Your task to perform on an android device: turn off smart reply in the gmail app Image 0: 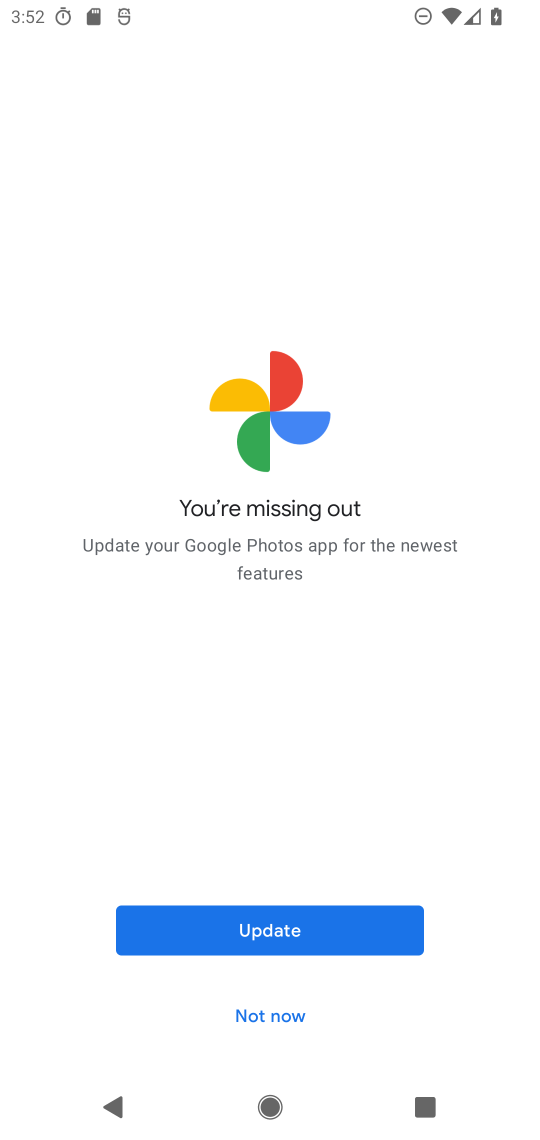
Step 0: press home button
Your task to perform on an android device: turn off smart reply in the gmail app Image 1: 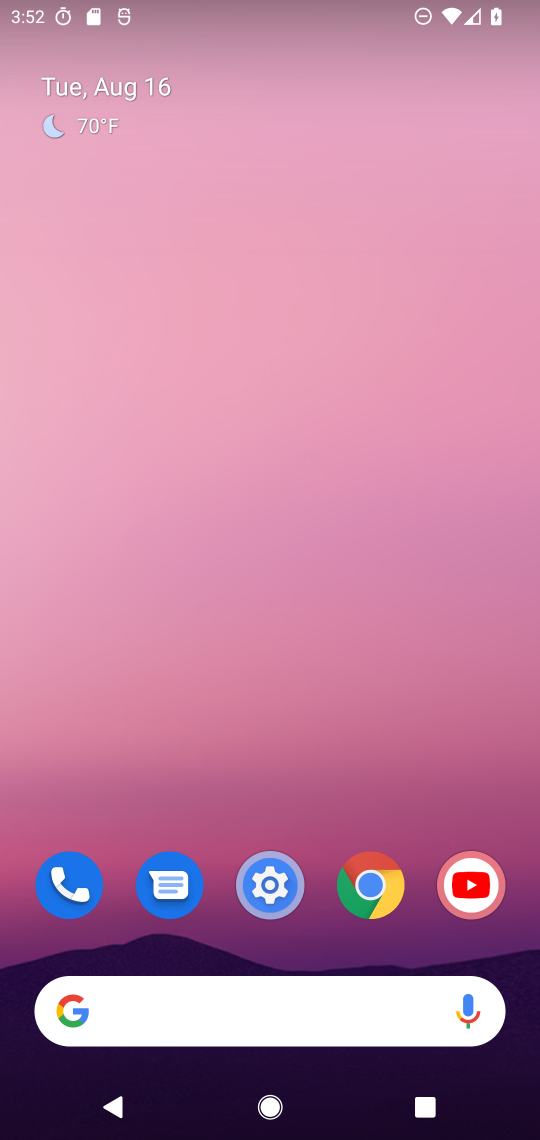
Step 1: drag from (274, 936) to (246, 299)
Your task to perform on an android device: turn off smart reply in the gmail app Image 2: 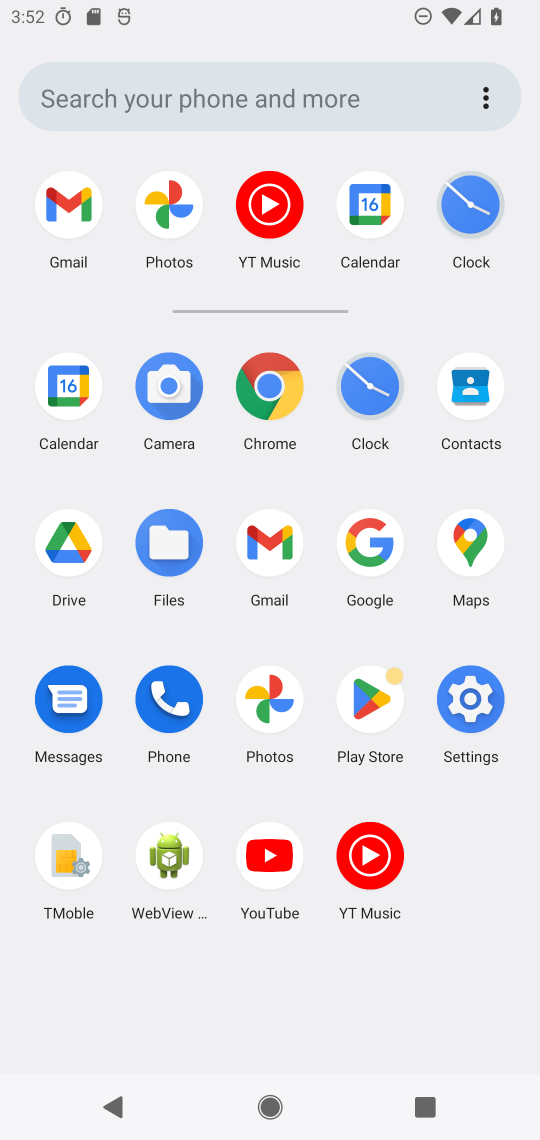
Step 2: click (250, 540)
Your task to perform on an android device: turn off smart reply in the gmail app Image 3: 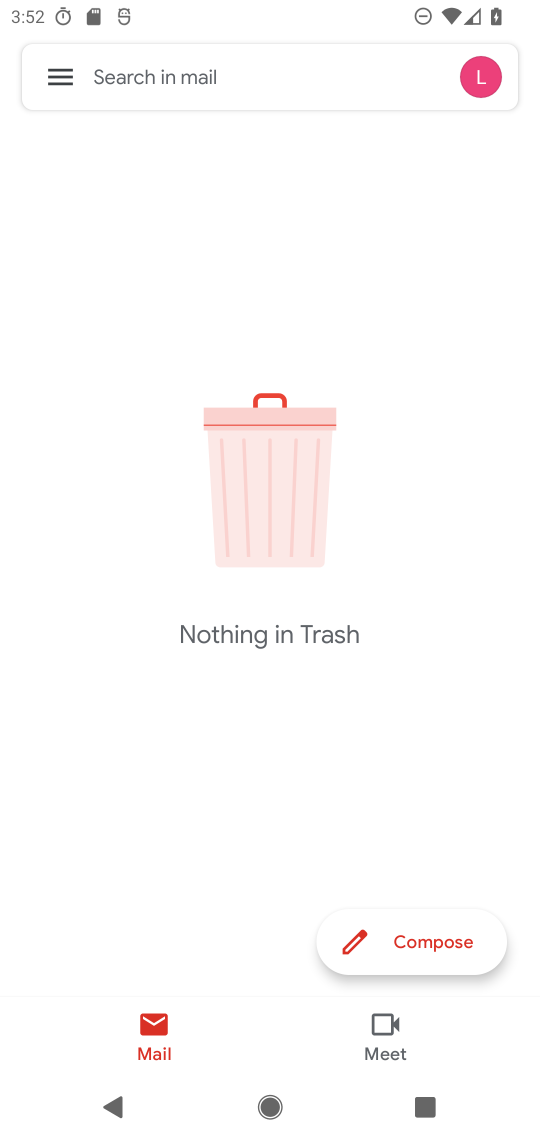
Step 3: click (56, 69)
Your task to perform on an android device: turn off smart reply in the gmail app Image 4: 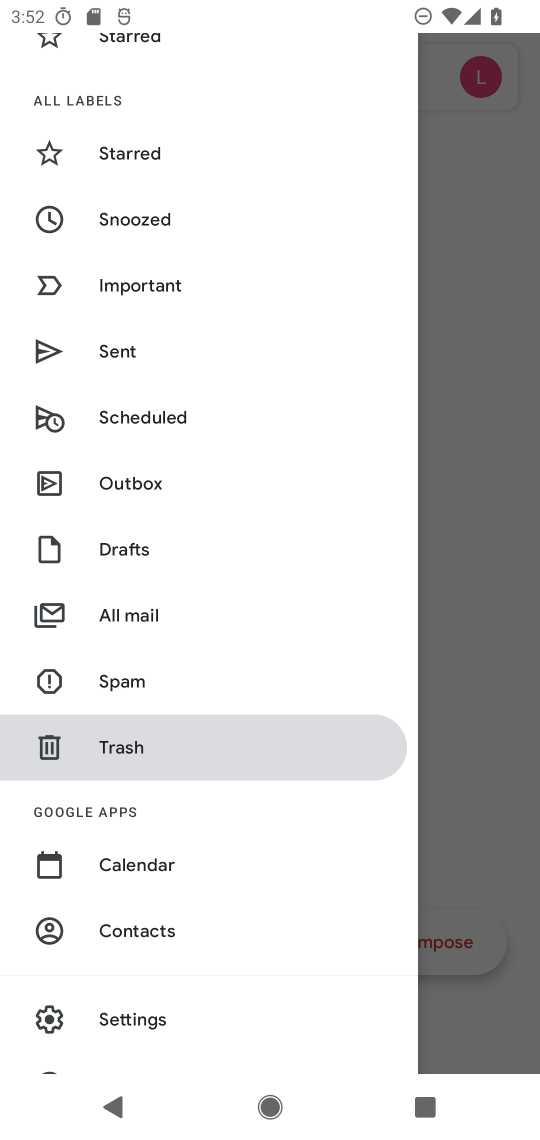
Step 4: click (184, 1016)
Your task to perform on an android device: turn off smart reply in the gmail app Image 5: 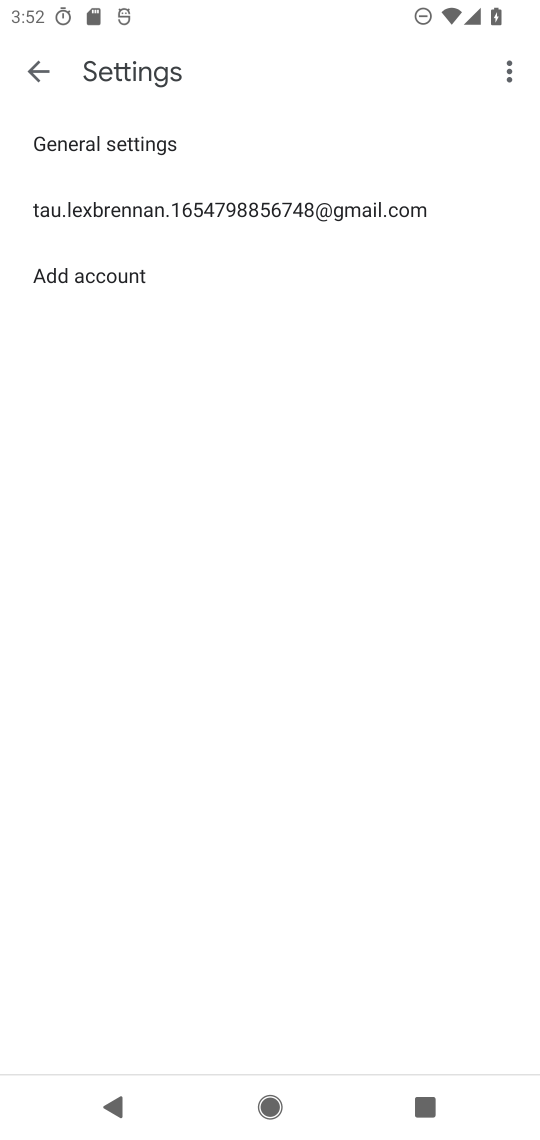
Step 5: click (167, 199)
Your task to perform on an android device: turn off smart reply in the gmail app Image 6: 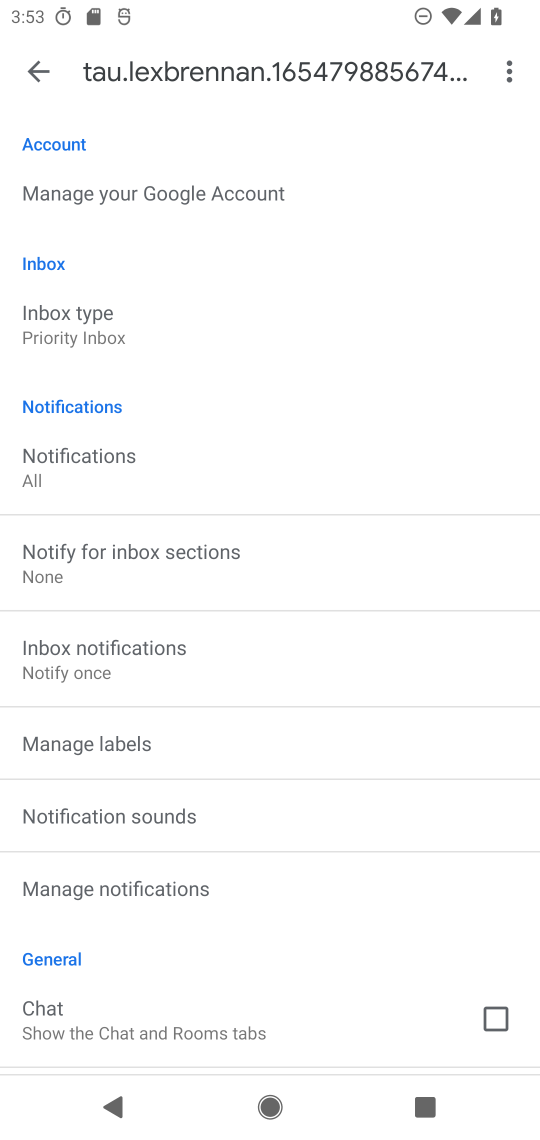
Step 6: drag from (274, 912) to (299, 216)
Your task to perform on an android device: turn off smart reply in the gmail app Image 7: 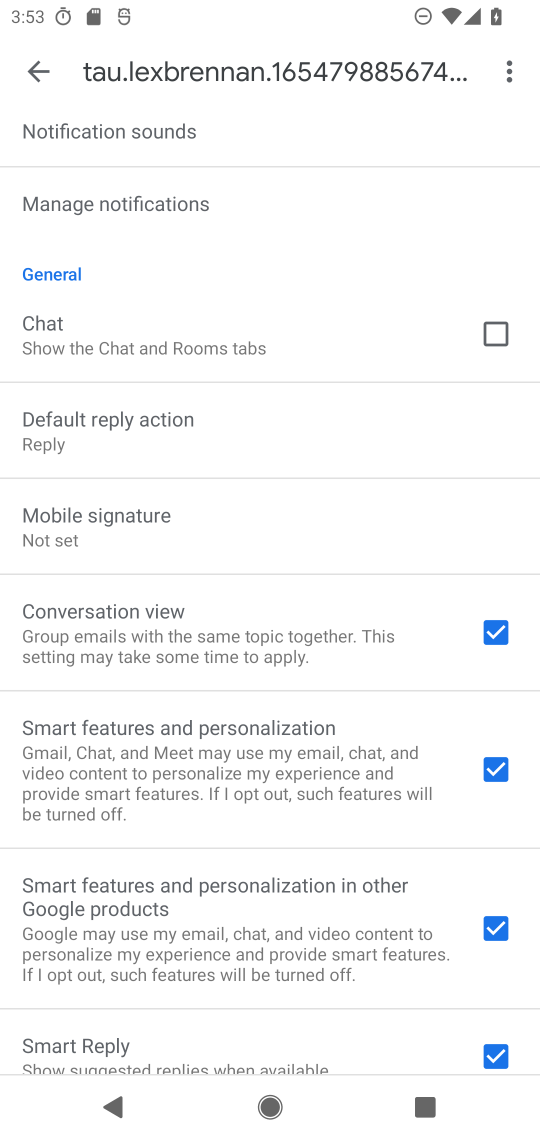
Step 7: drag from (273, 940) to (303, 479)
Your task to perform on an android device: turn off smart reply in the gmail app Image 8: 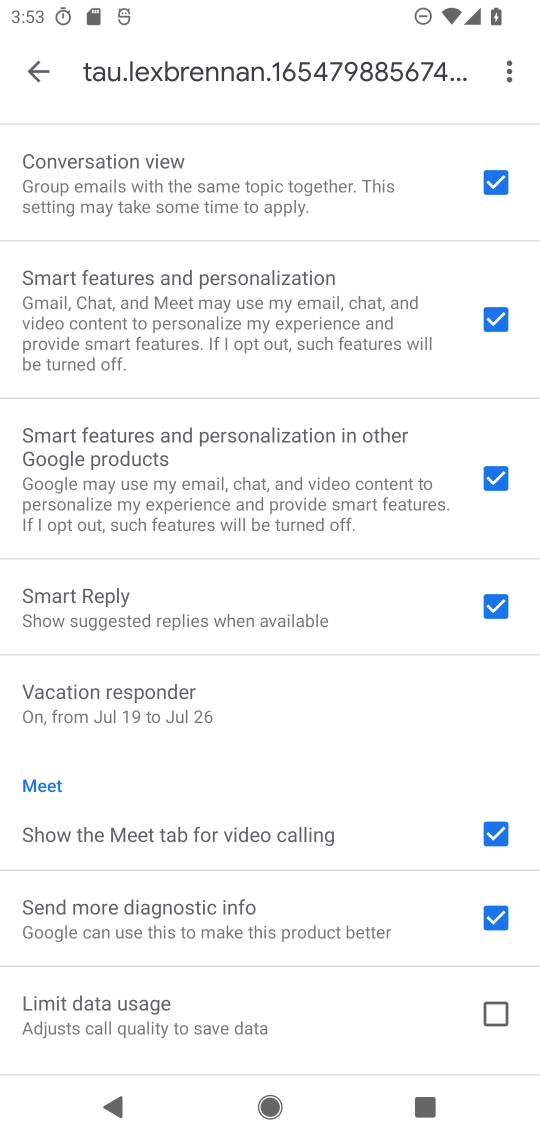
Step 8: click (490, 608)
Your task to perform on an android device: turn off smart reply in the gmail app Image 9: 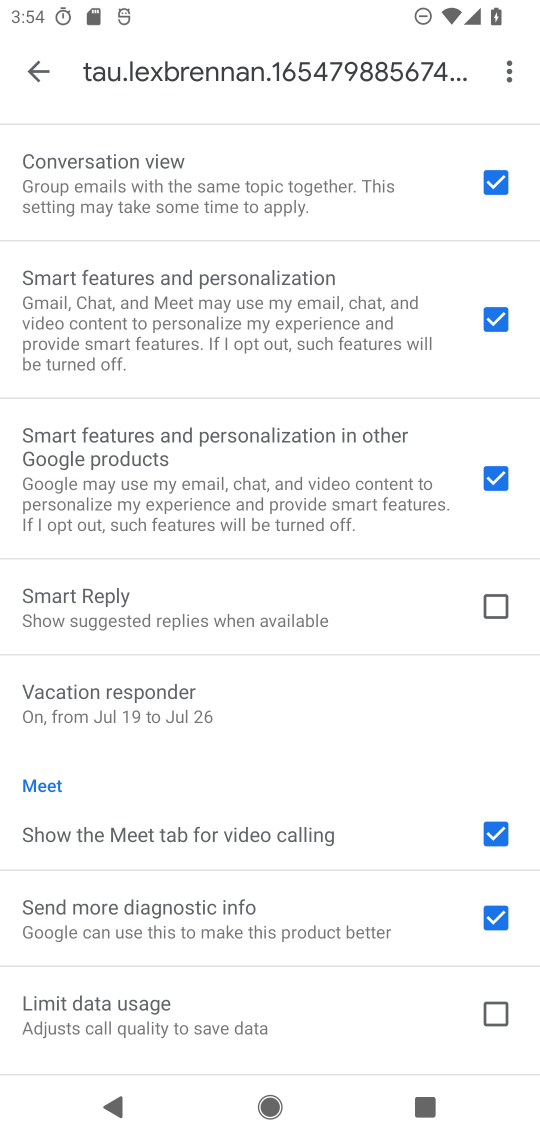
Step 9: task complete